Your task to perform on an android device: turn off notifications settings in the gmail app Image 0: 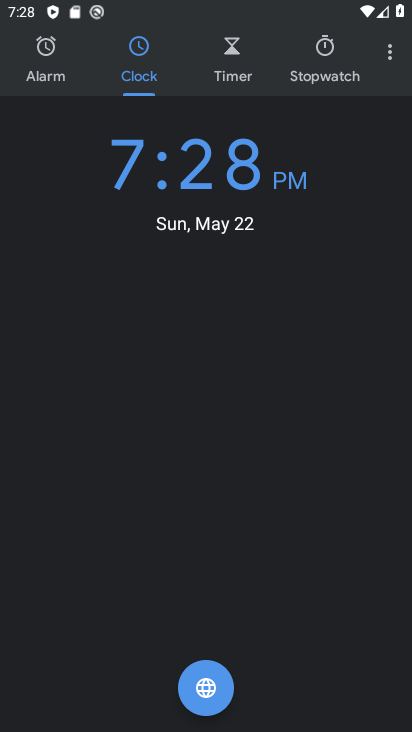
Step 0: press home button
Your task to perform on an android device: turn off notifications settings in the gmail app Image 1: 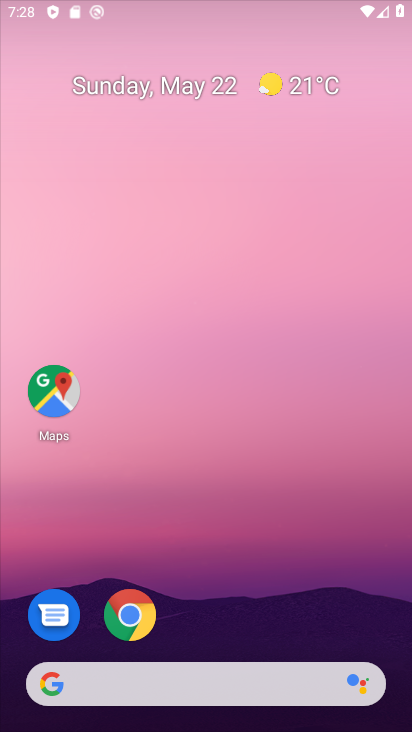
Step 1: drag from (265, 597) to (266, 209)
Your task to perform on an android device: turn off notifications settings in the gmail app Image 2: 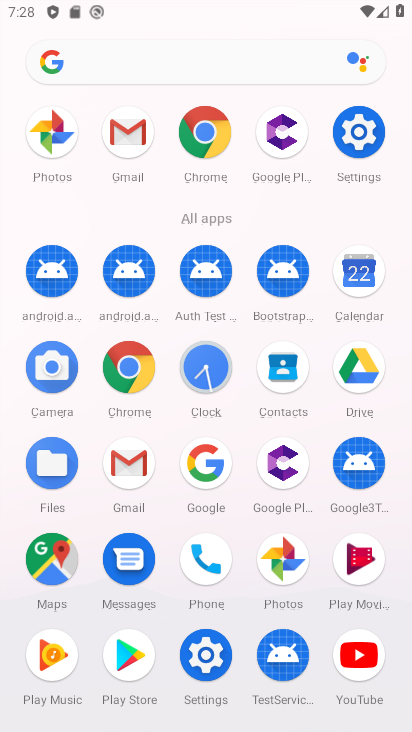
Step 2: click (131, 456)
Your task to perform on an android device: turn off notifications settings in the gmail app Image 3: 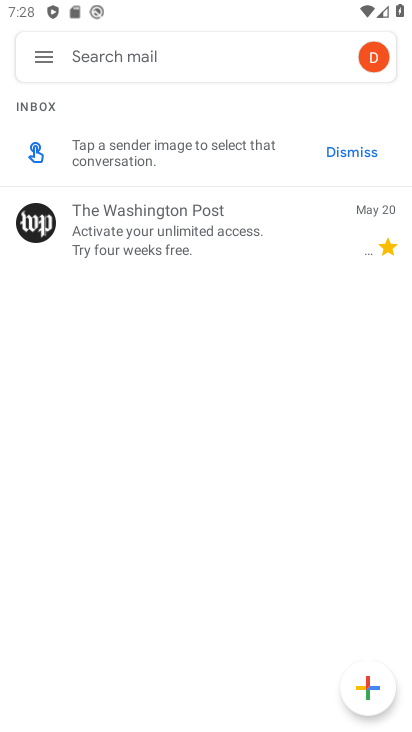
Step 3: click (36, 42)
Your task to perform on an android device: turn off notifications settings in the gmail app Image 4: 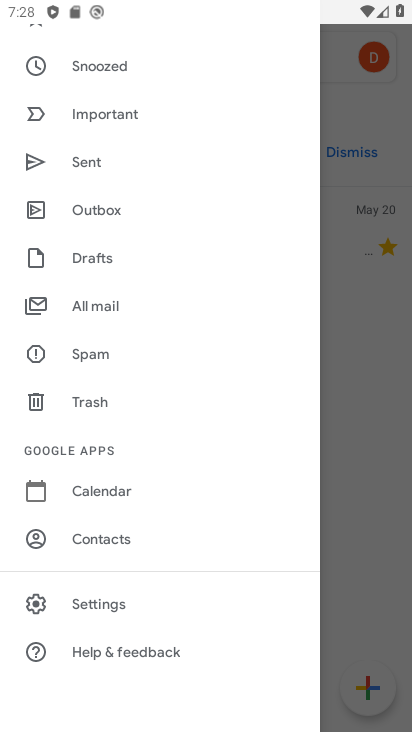
Step 4: click (135, 608)
Your task to perform on an android device: turn off notifications settings in the gmail app Image 5: 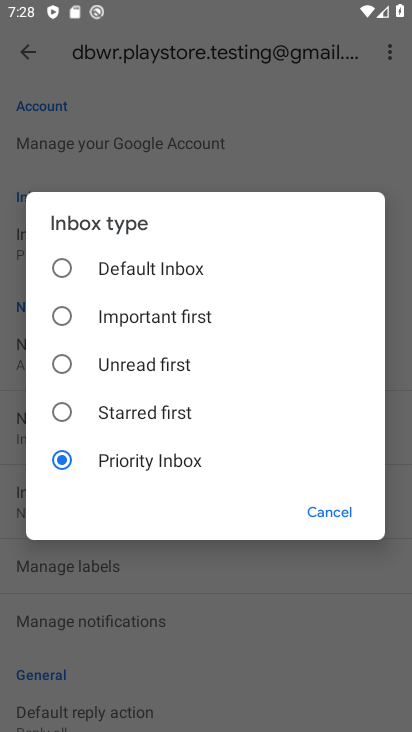
Step 5: click (141, 259)
Your task to perform on an android device: turn off notifications settings in the gmail app Image 6: 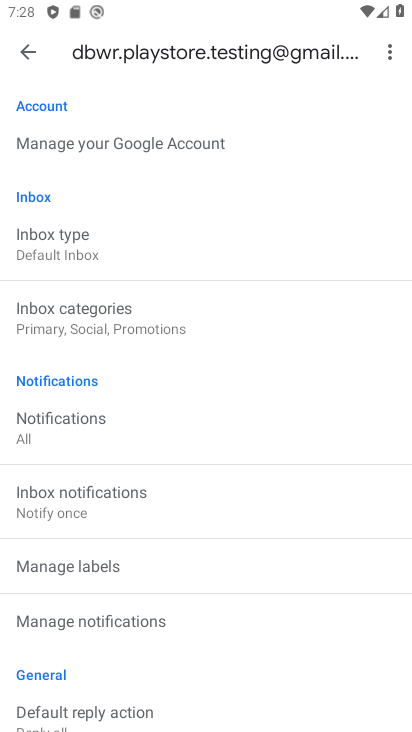
Step 6: task complete